Your task to perform on an android device: Show me recent news Image 0: 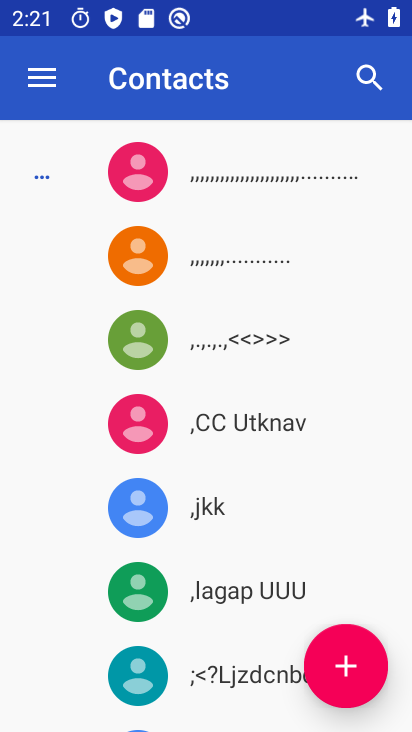
Step 0: press home button
Your task to perform on an android device: Show me recent news Image 1: 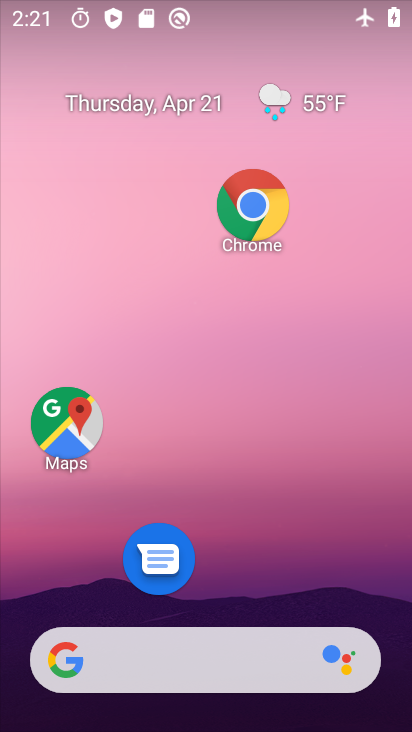
Step 1: task complete